Your task to perform on an android device: Open the calendar and show me this week's events? Image 0: 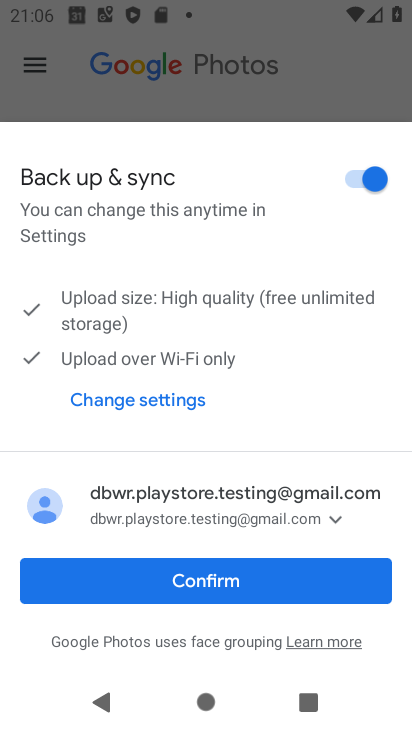
Step 0: press home button
Your task to perform on an android device: Open the calendar and show me this week's events? Image 1: 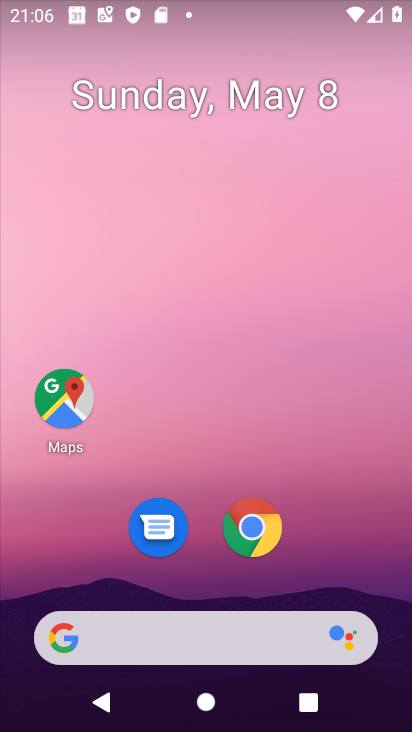
Step 1: drag from (212, 565) to (211, 148)
Your task to perform on an android device: Open the calendar and show me this week's events? Image 2: 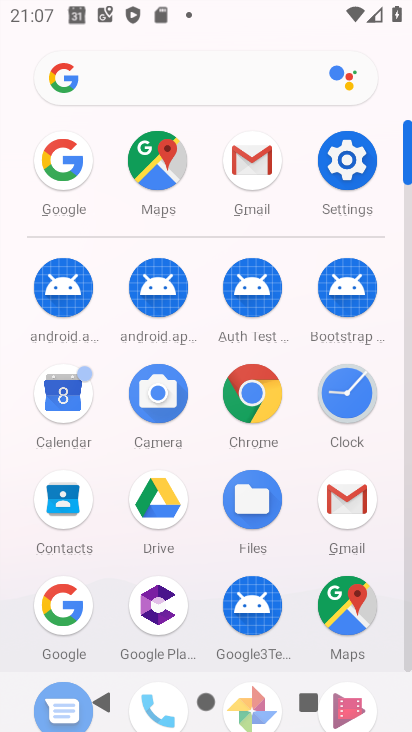
Step 2: click (65, 395)
Your task to perform on an android device: Open the calendar and show me this week's events? Image 3: 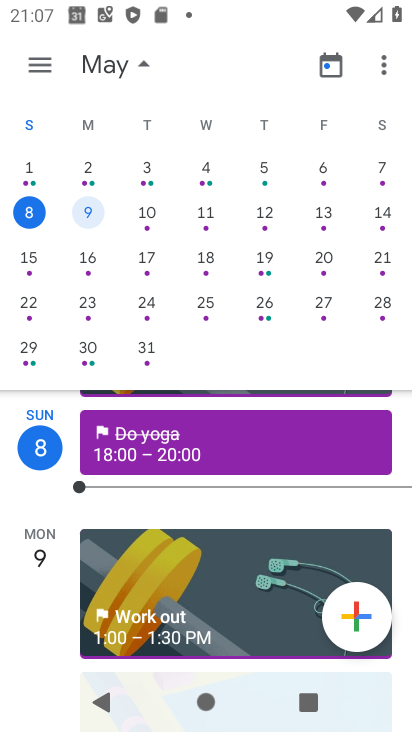
Step 3: click (150, 215)
Your task to perform on an android device: Open the calendar and show me this week's events? Image 4: 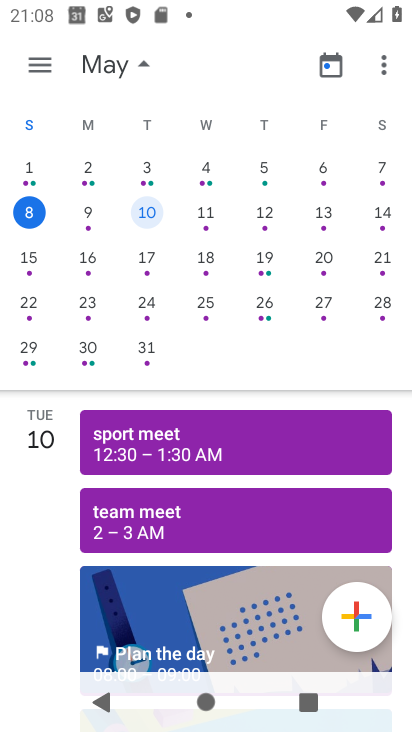
Step 4: task complete